Your task to perform on an android device: Open privacy settings Image 0: 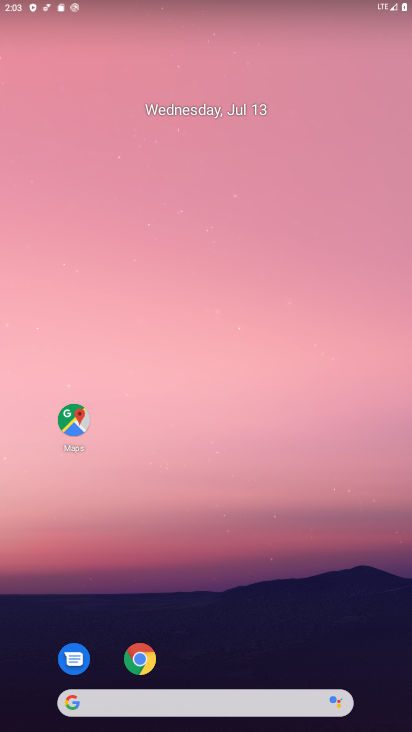
Step 0: drag from (371, 614) to (357, 140)
Your task to perform on an android device: Open privacy settings Image 1: 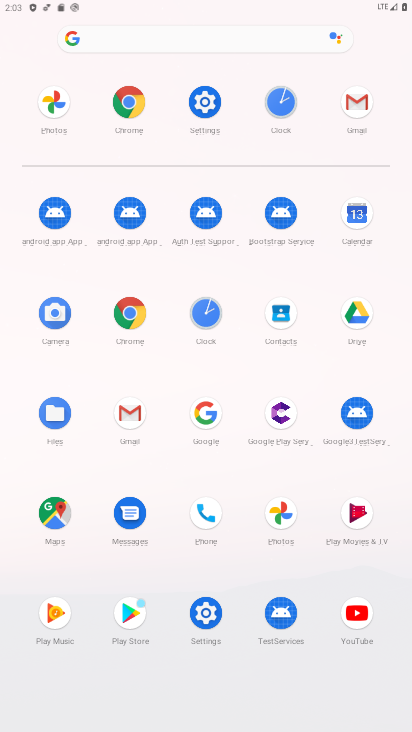
Step 1: click (205, 616)
Your task to perform on an android device: Open privacy settings Image 2: 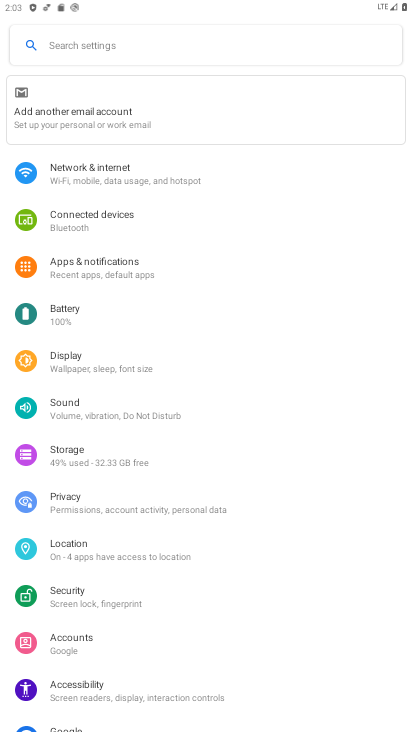
Step 2: click (58, 493)
Your task to perform on an android device: Open privacy settings Image 3: 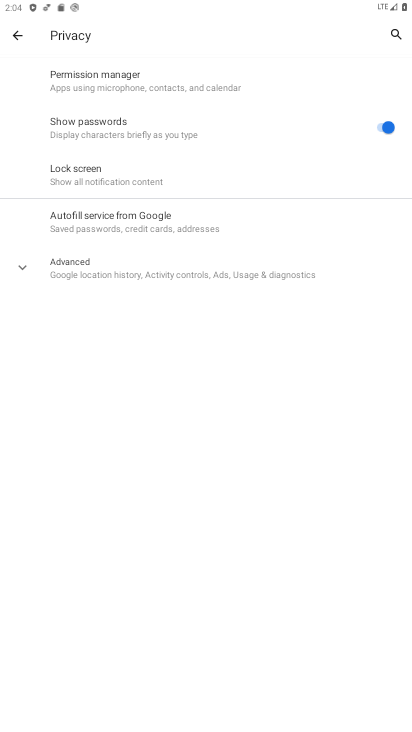
Step 3: click (18, 264)
Your task to perform on an android device: Open privacy settings Image 4: 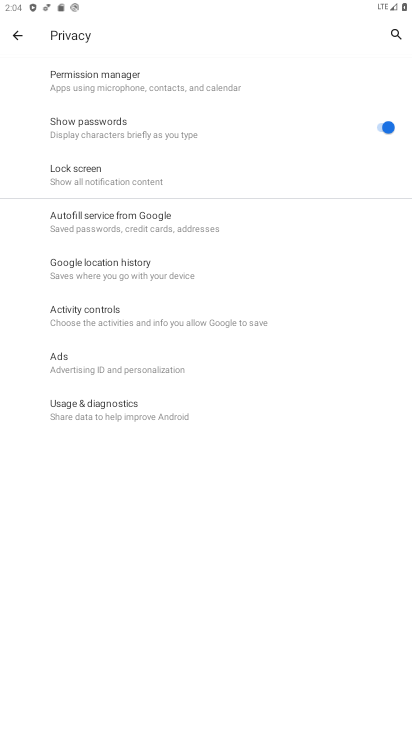
Step 4: task complete